Your task to perform on an android device: manage bookmarks in the chrome app Image 0: 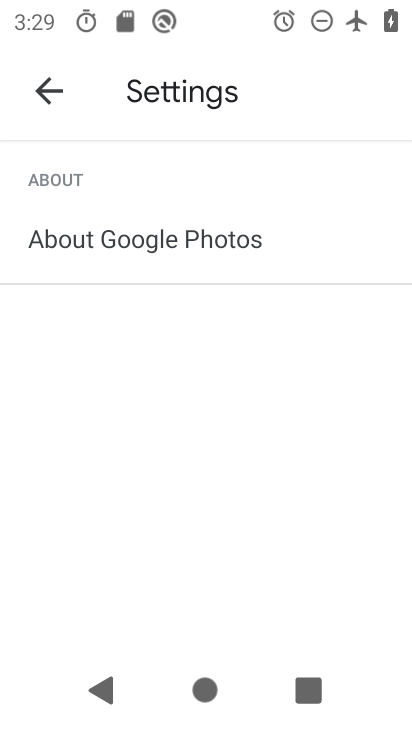
Step 0: press home button
Your task to perform on an android device: manage bookmarks in the chrome app Image 1: 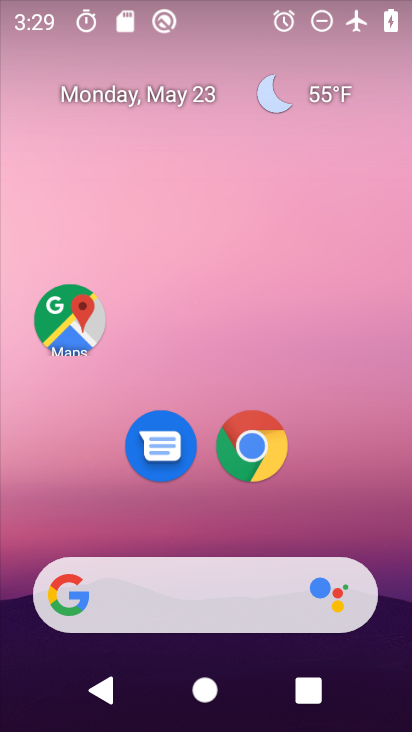
Step 1: click (247, 462)
Your task to perform on an android device: manage bookmarks in the chrome app Image 2: 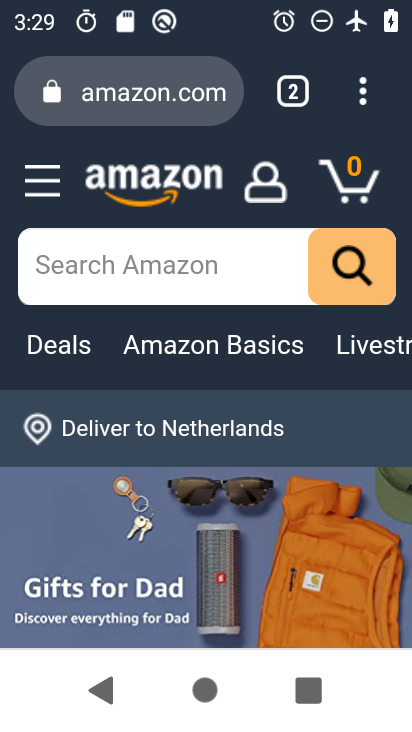
Step 2: click (364, 88)
Your task to perform on an android device: manage bookmarks in the chrome app Image 3: 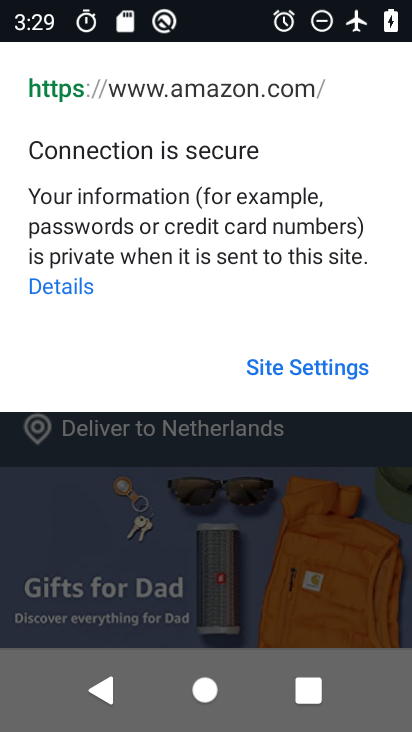
Step 3: click (290, 358)
Your task to perform on an android device: manage bookmarks in the chrome app Image 4: 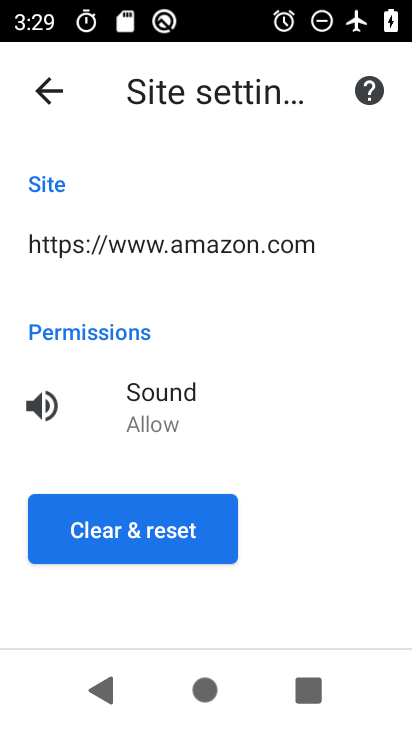
Step 4: click (38, 87)
Your task to perform on an android device: manage bookmarks in the chrome app Image 5: 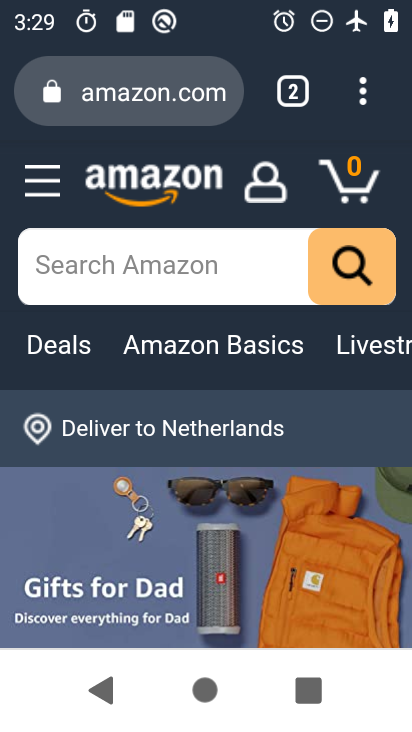
Step 5: task complete